Your task to perform on an android device: turn off location history Image 0: 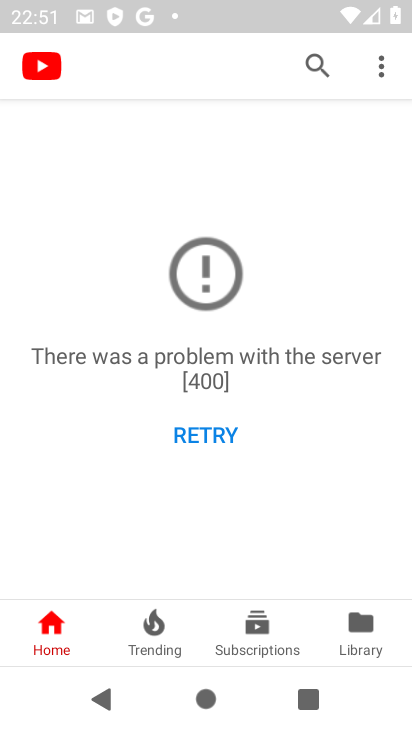
Step 0: press home button
Your task to perform on an android device: turn off location history Image 1: 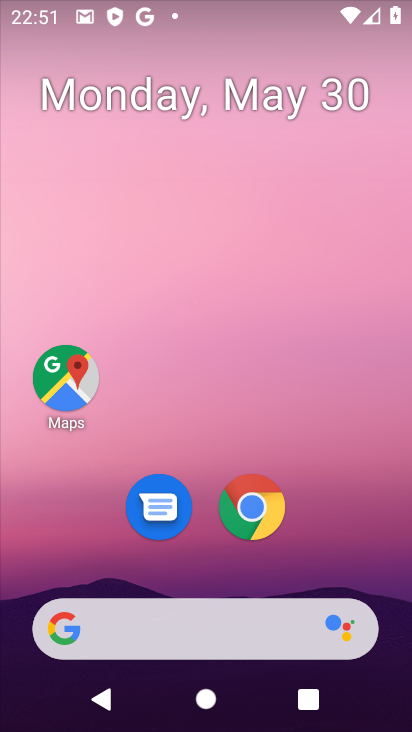
Step 1: drag from (373, 548) to (364, 157)
Your task to perform on an android device: turn off location history Image 2: 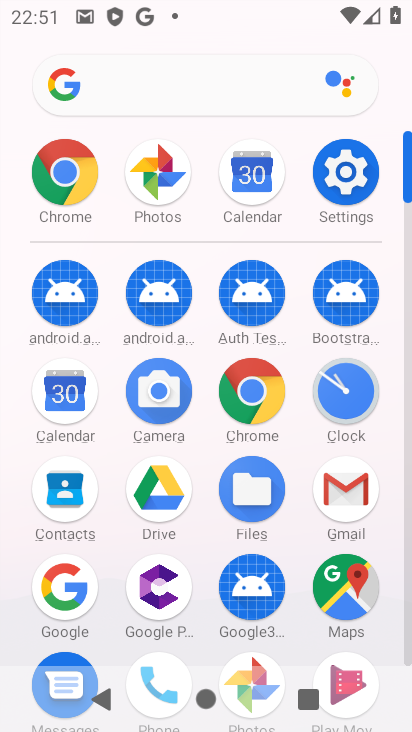
Step 2: click (344, 185)
Your task to perform on an android device: turn off location history Image 3: 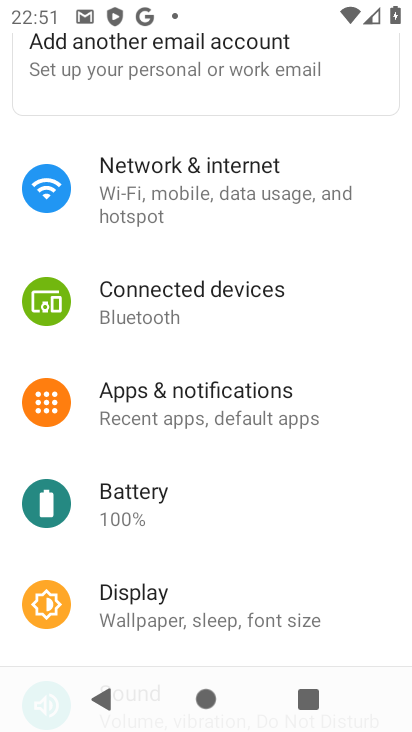
Step 3: drag from (360, 520) to (363, 268)
Your task to perform on an android device: turn off location history Image 4: 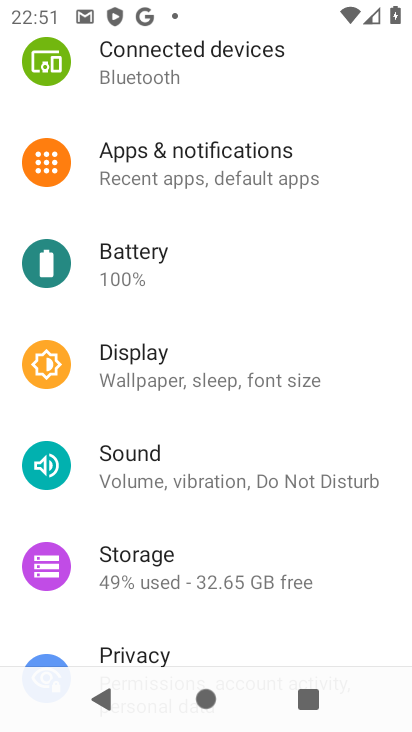
Step 4: drag from (342, 555) to (358, 393)
Your task to perform on an android device: turn off location history Image 5: 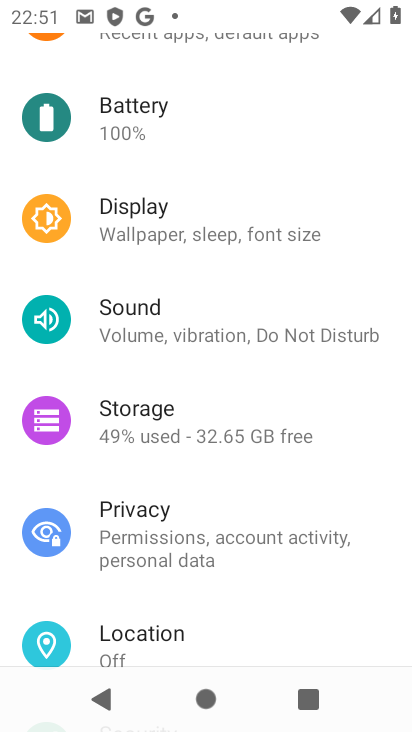
Step 5: drag from (370, 566) to (362, 418)
Your task to perform on an android device: turn off location history Image 6: 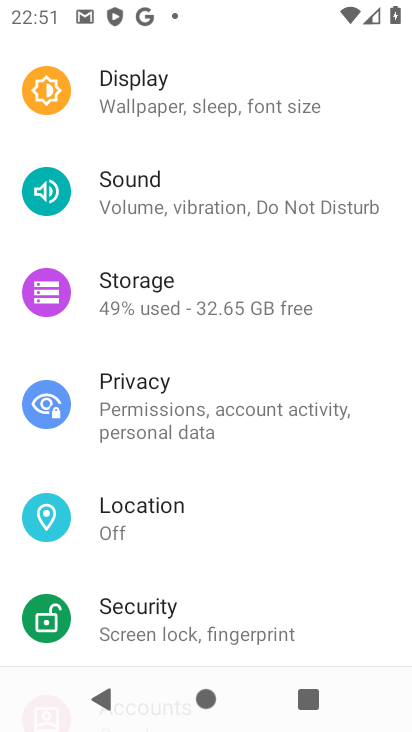
Step 6: drag from (332, 558) to (332, 412)
Your task to perform on an android device: turn off location history Image 7: 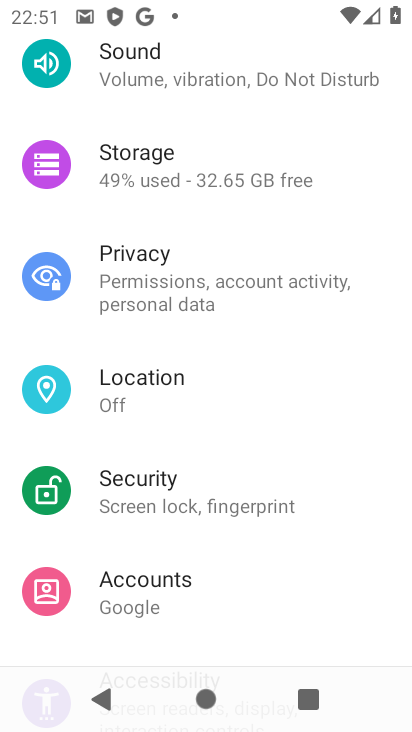
Step 7: click (224, 419)
Your task to perform on an android device: turn off location history Image 8: 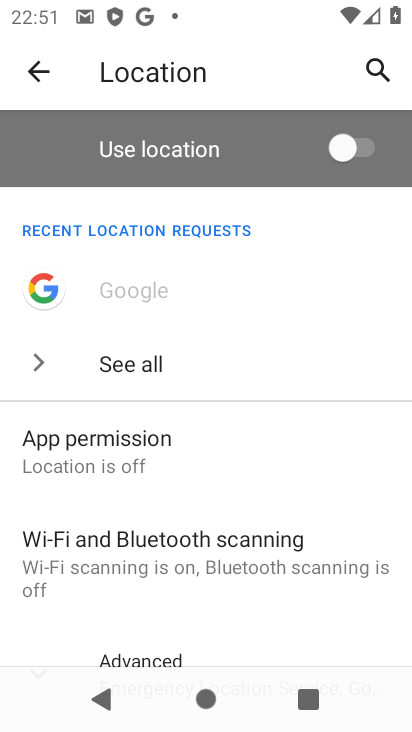
Step 8: drag from (338, 461) to (351, 301)
Your task to perform on an android device: turn off location history Image 9: 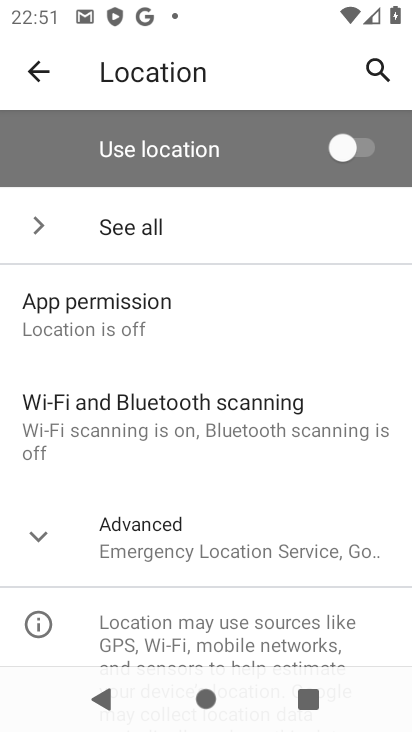
Step 9: click (320, 532)
Your task to perform on an android device: turn off location history Image 10: 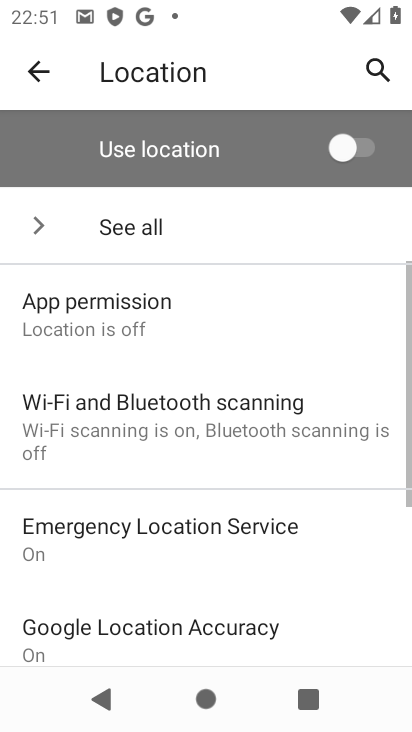
Step 10: drag from (322, 545) to (331, 355)
Your task to perform on an android device: turn off location history Image 11: 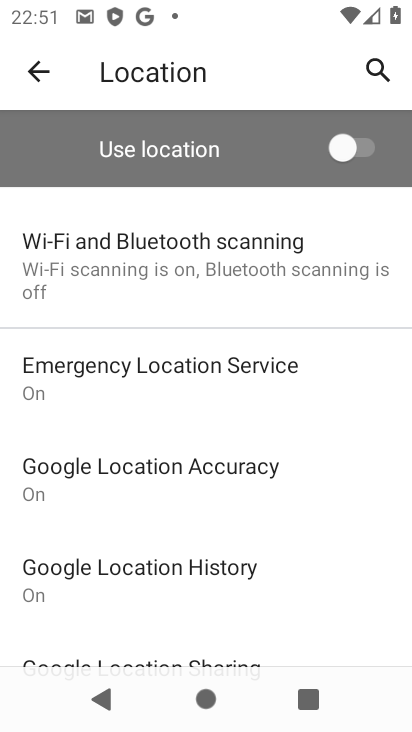
Step 11: drag from (328, 558) to (327, 421)
Your task to perform on an android device: turn off location history Image 12: 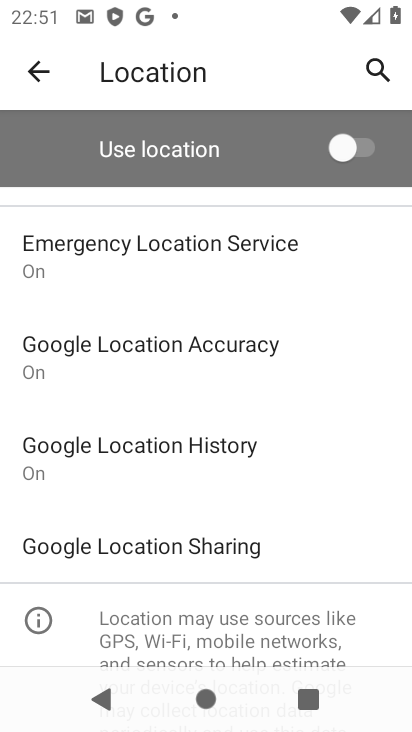
Step 12: click (219, 458)
Your task to perform on an android device: turn off location history Image 13: 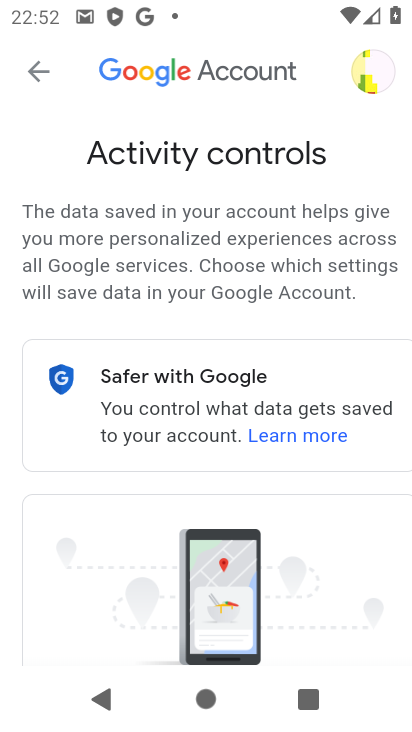
Step 13: drag from (272, 530) to (297, 349)
Your task to perform on an android device: turn off location history Image 14: 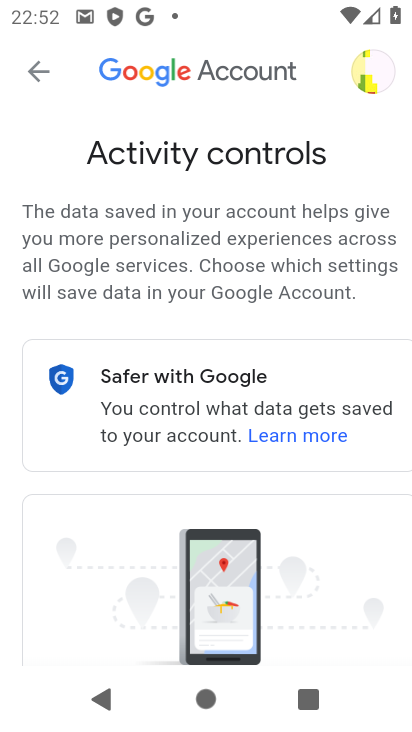
Step 14: drag from (300, 557) to (306, 283)
Your task to perform on an android device: turn off location history Image 15: 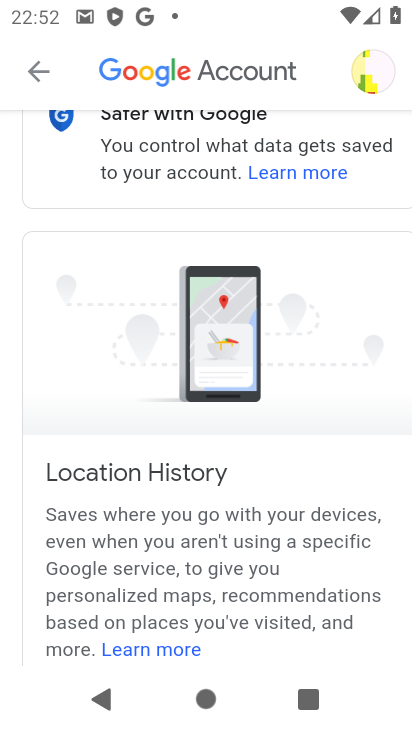
Step 15: drag from (311, 534) to (313, 345)
Your task to perform on an android device: turn off location history Image 16: 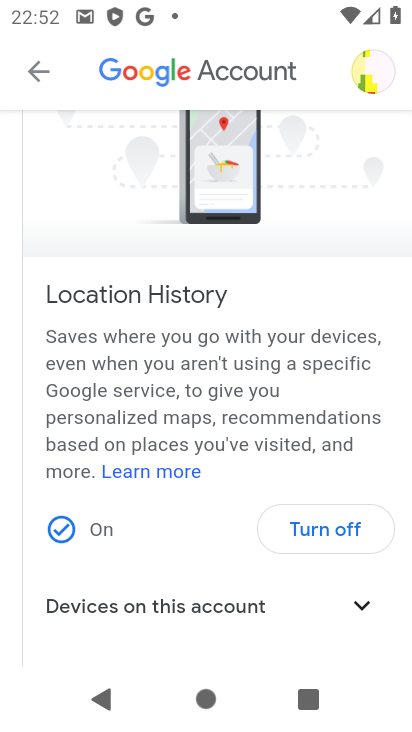
Step 16: click (304, 510)
Your task to perform on an android device: turn off location history Image 17: 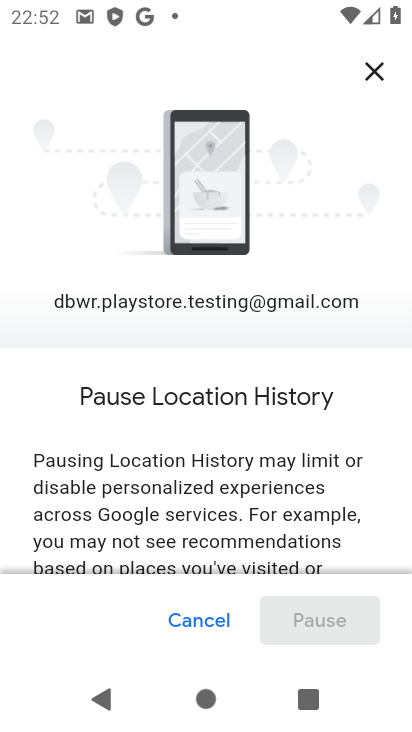
Step 17: drag from (298, 526) to (324, 285)
Your task to perform on an android device: turn off location history Image 18: 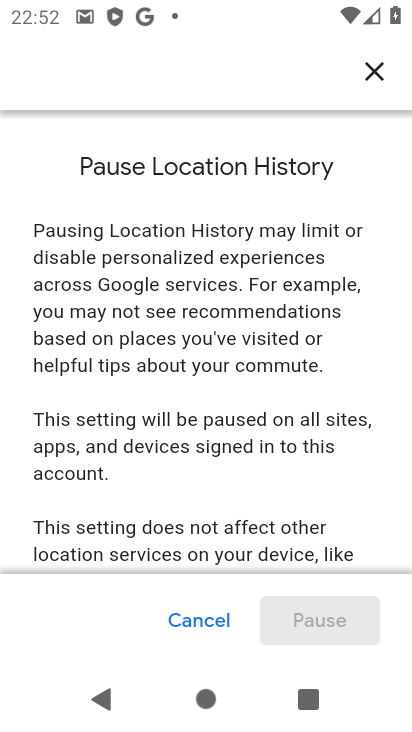
Step 18: drag from (293, 477) to (299, 314)
Your task to perform on an android device: turn off location history Image 19: 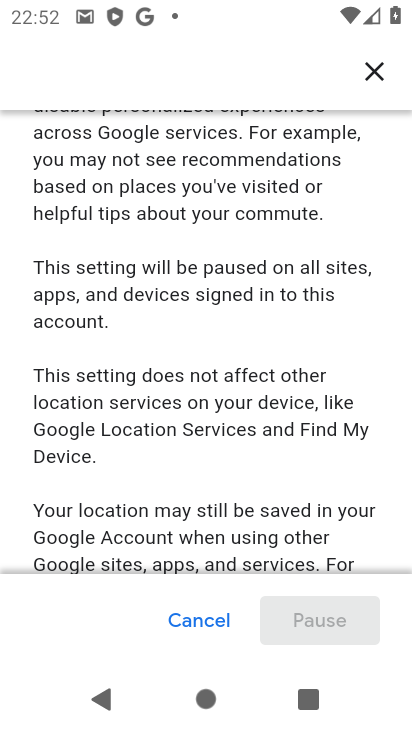
Step 19: drag from (266, 477) to (271, 347)
Your task to perform on an android device: turn off location history Image 20: 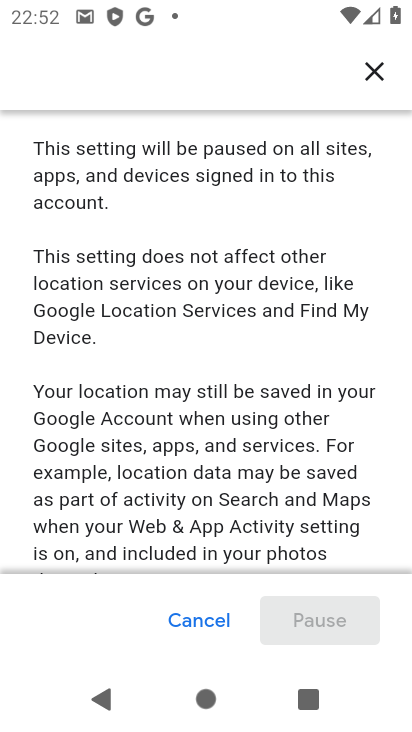
Step 20: drag from (260, 461) to (264, 272)
Your task to perform on an android device: turn off location history Image 21: 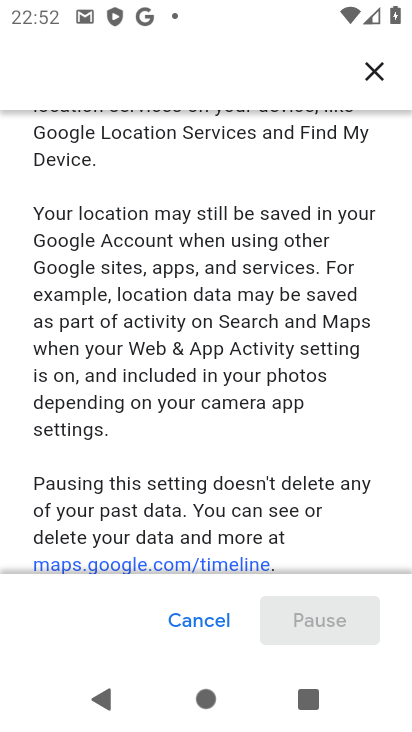
Step 21: drag from (267, 462) to (276, 257)
Your task to perform on an android device: turn off location history Image 22: 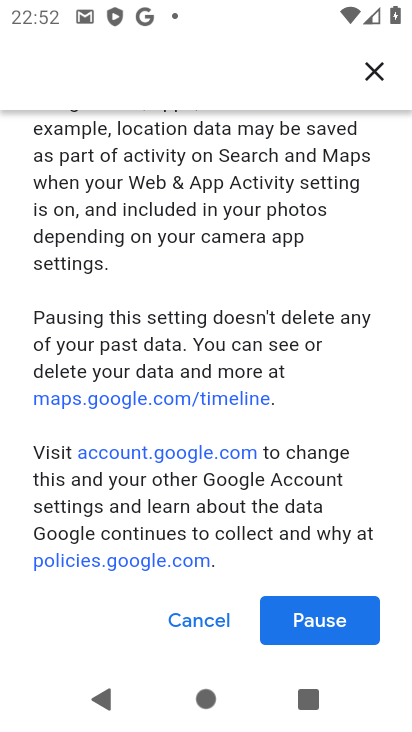
Step 22: click (328, 619)
Your task to perform on an android device: turn off location history Image 23: 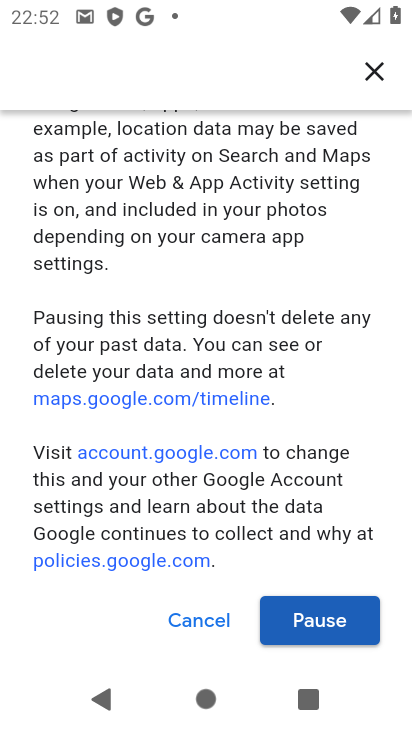
Step 23: click (337, 616)
Your task to perform on an android device: turn off location history Image 24: 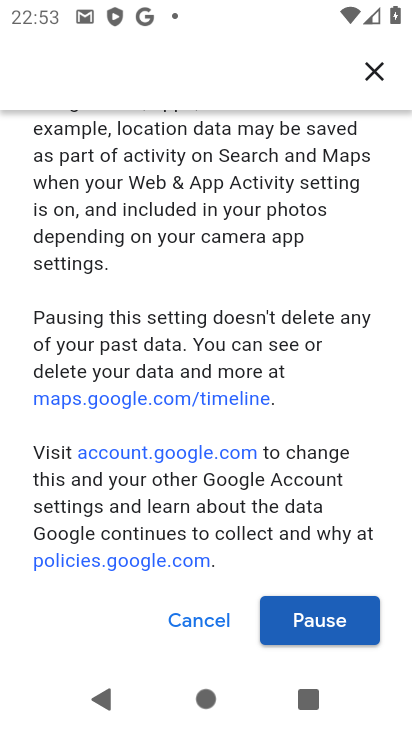
Step 24: click (344, 624)
Your task to perform on an android device: turn off location history Image 25: 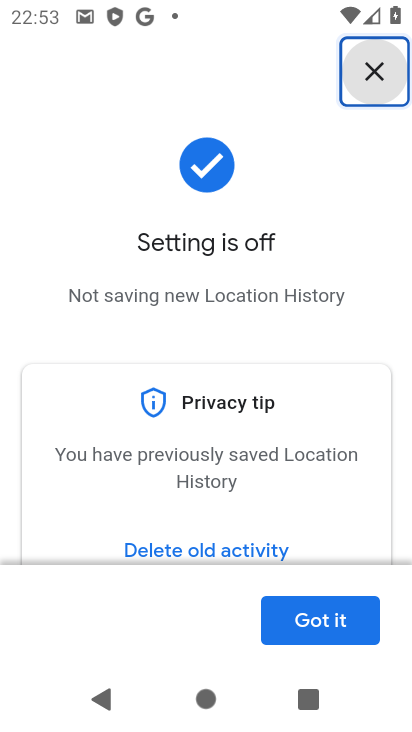
Step 25: task complete